Your task to perform on an android device: move an email to a new category in the gmail app Image 0: 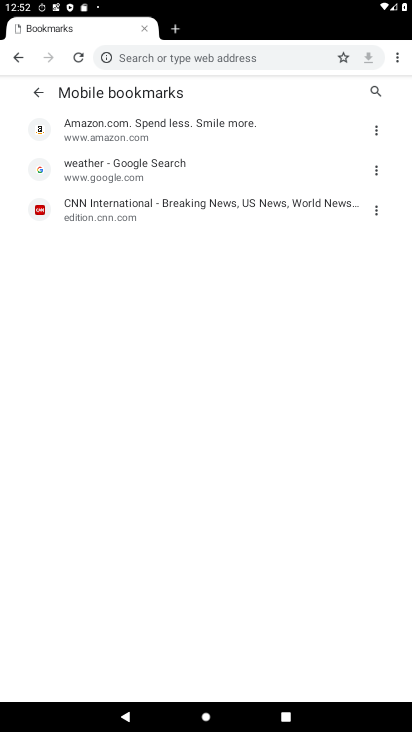
Step 0: press home button
Your task to perform on an android device: move an email to a new category in the gmail app Image 1: 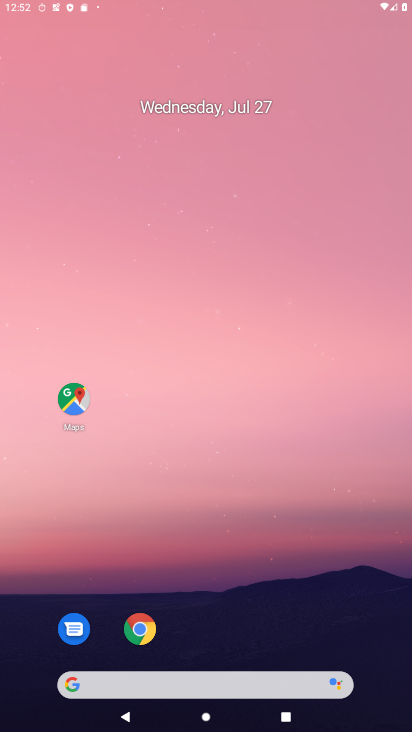
Step 1: drag from (367, 654) to (213, 16)
Your task to perform on an android device: move an email to a new category in the gmail app Image 2: 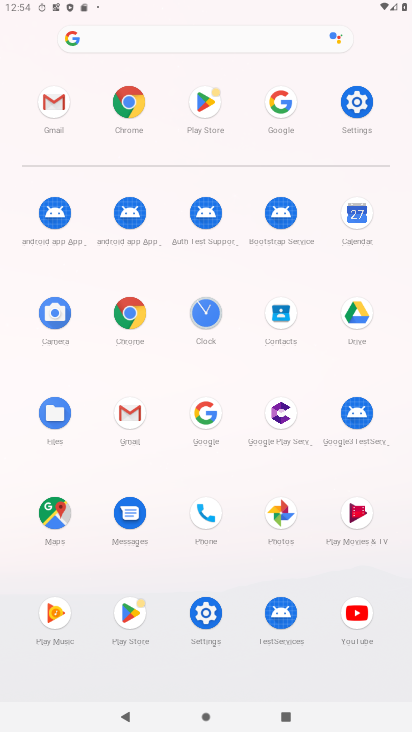
Step 2: click (139, 406)
Your task to perform on an android device: move an email to a new category in the gmail app Image 3: 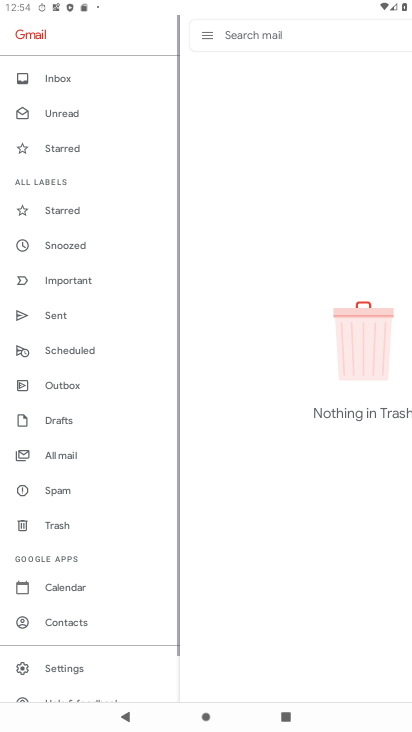
Step 3: task complete